Your task to perform on an android device: snooze an email in the gmail app Image 0: 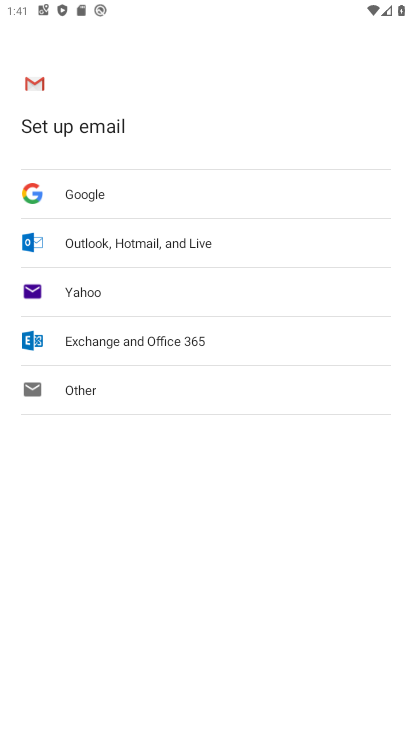
Step 0: task complete